Your task to perform on an android device: check storage Image 0: 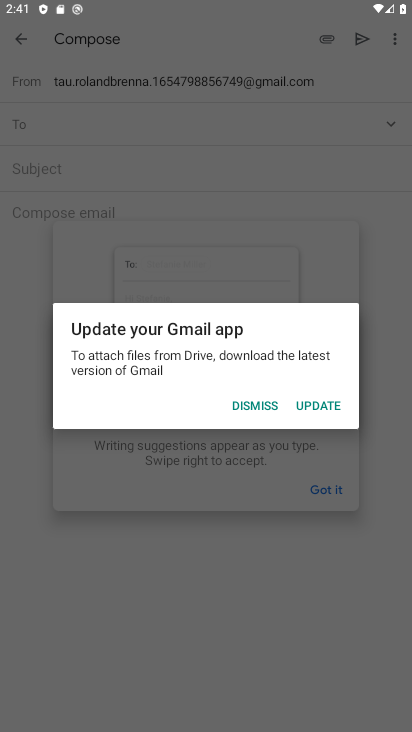
Step 0: click (248, 397)
Your task to perform on an android device: check storage Image 1: 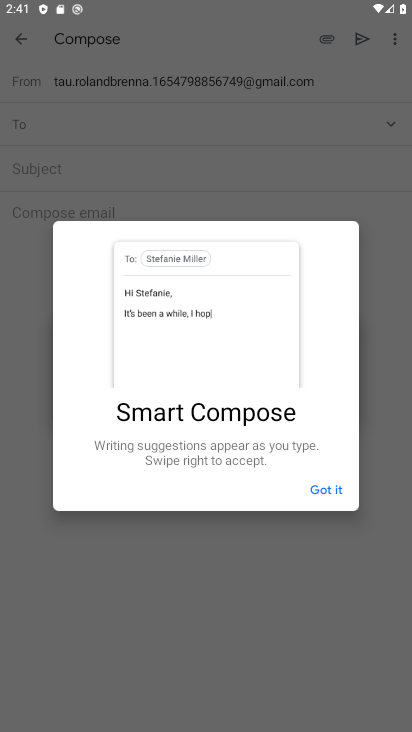
Step 1: press home button
Your task to perform on an android device: check storage Image 2: 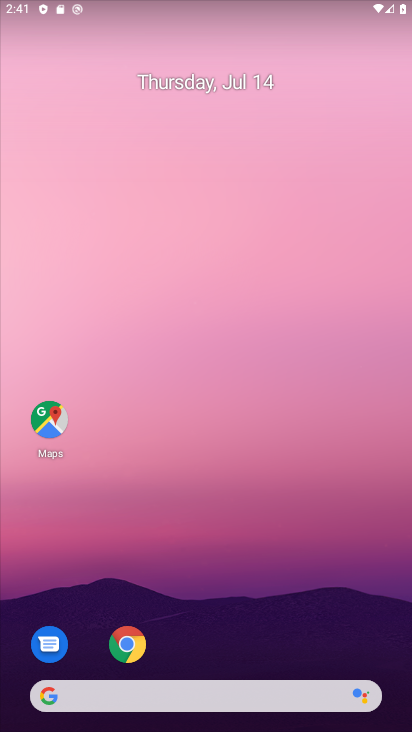
Step 2: drag from (210, 627) to (189, 176)
Your task to perform on an android device: check storage Image 3: 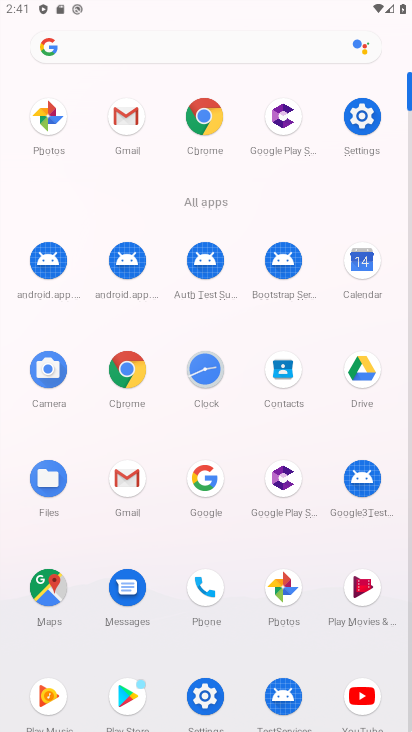
Step 3: click (371, 116)
Your task to perform on an android device: check storage Image 4: 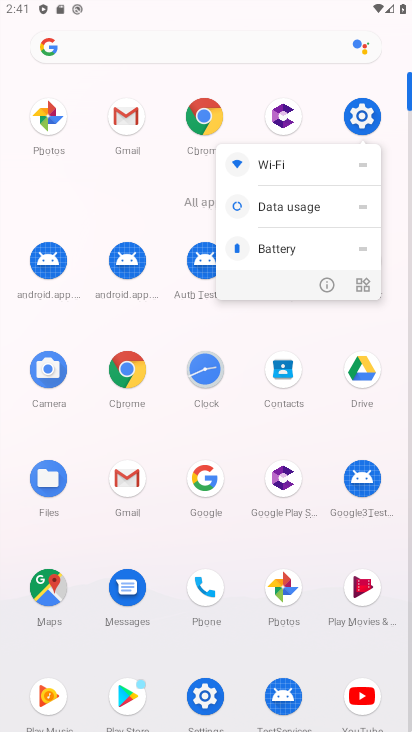
Step 4: click (321, 282)
Your task to perform on an android device: check storage Image 5: 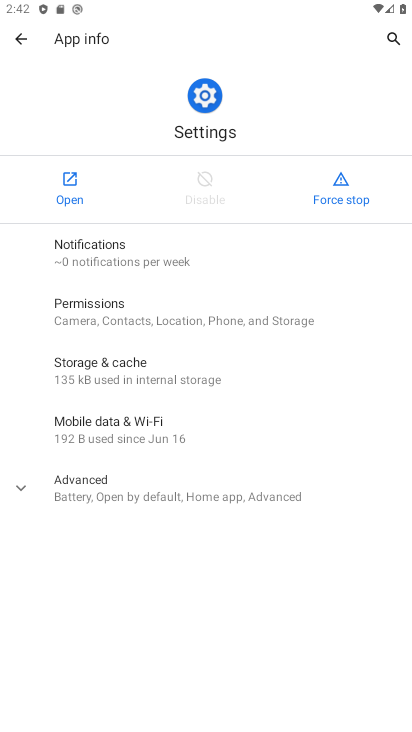
Step 5: click (55, 188)
Your task to perform on an android device: check storage Image 6: 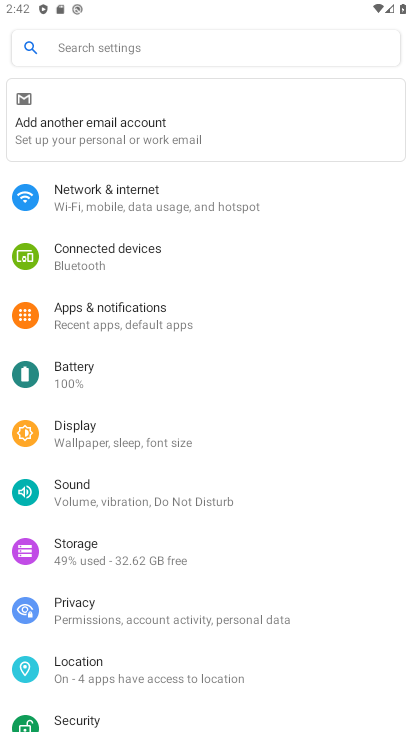
Step 6: drag from (248, 434) to (239, 240)
Your task to perform on an android device: check storage Image 7: 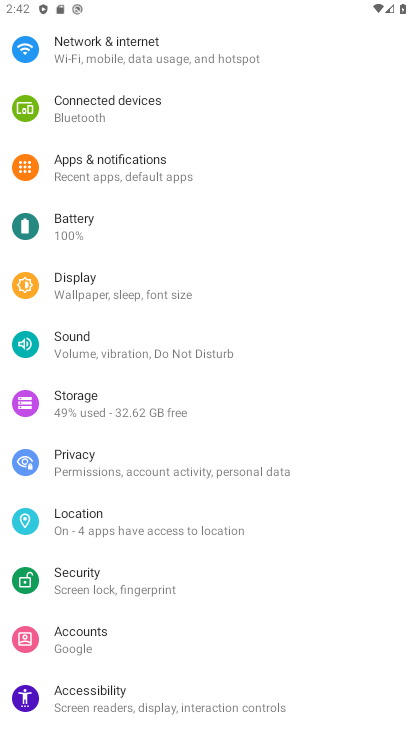
Step 7: click (127, 398)
Your task to perform on an android device: check storage Image 8: 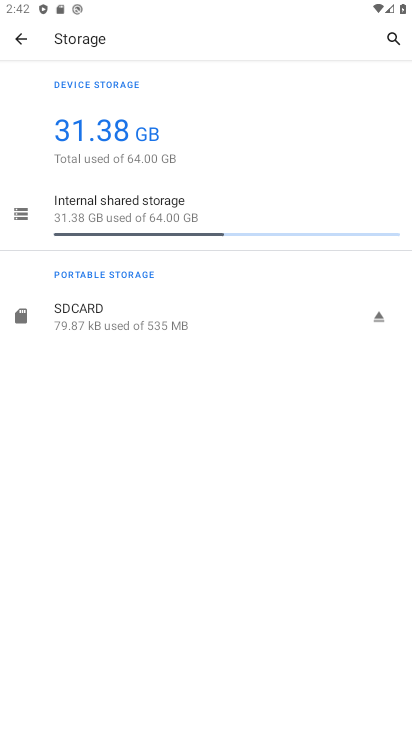
Step 8: task complete